Your task to perform on an android device: find snoozed emails in the gmail app Image 0: 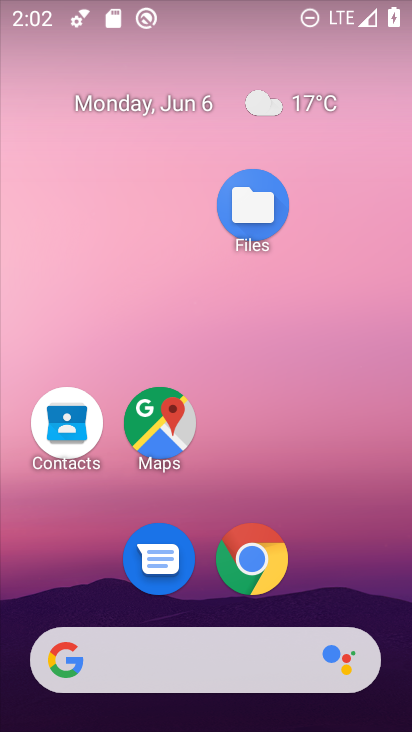
Step 0: drag from (262, 622) to (256, 169)
Your task to perform on an android device: find snoozed emails in the gmail app Image 1: 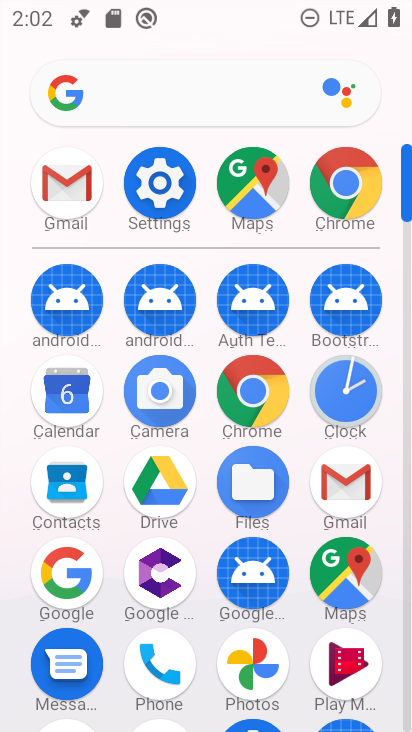
Step 1: click (332, 475)
Your task to perform on an android device: find snoozed emails in the gmail app Image 2: 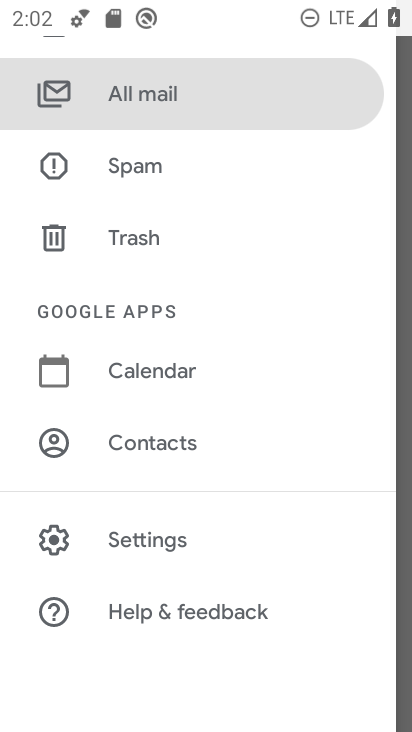
Step 2: drag from (275, 338) to (230, 590)
Your task to perform on an android device: find snoozed emails in the gmail app Image 3: 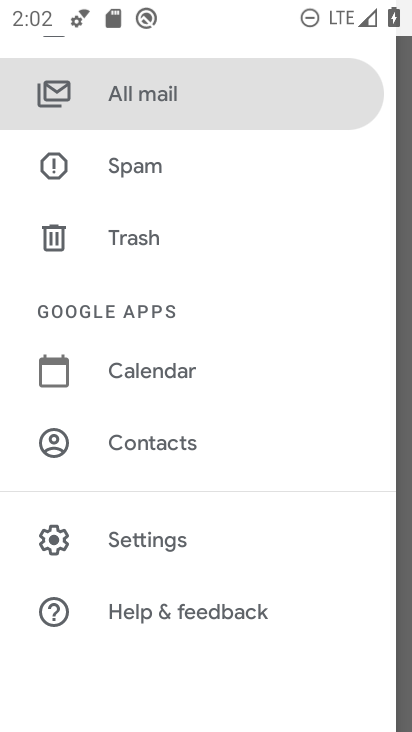
Step 3: drag from (216, 382) to (182, 630)
Your task to perform on an android device: find snoozed emails in the gmail app Image 4: 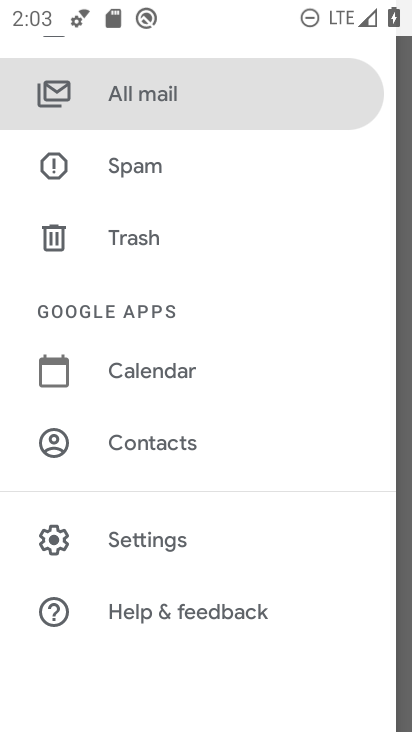
Step 4: drag from (171, 213) to (161, 644)
Your task to perform on an android device: find snoozed emails in the gmail app Image 5: 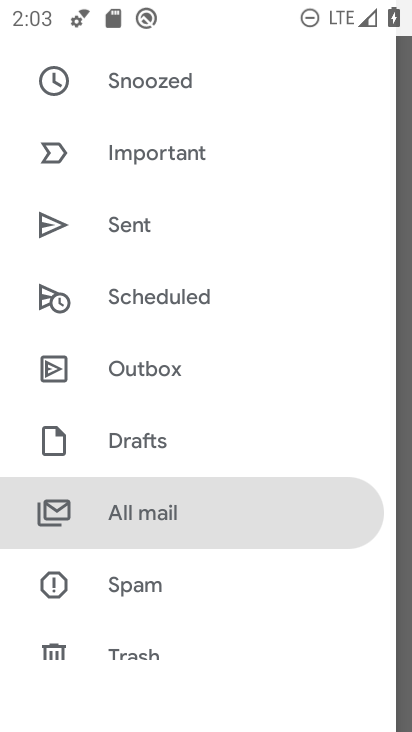
Step 5: click (181, 83)
Your task to perform on an android device: find snoozed emails in the gmail app Image 6: 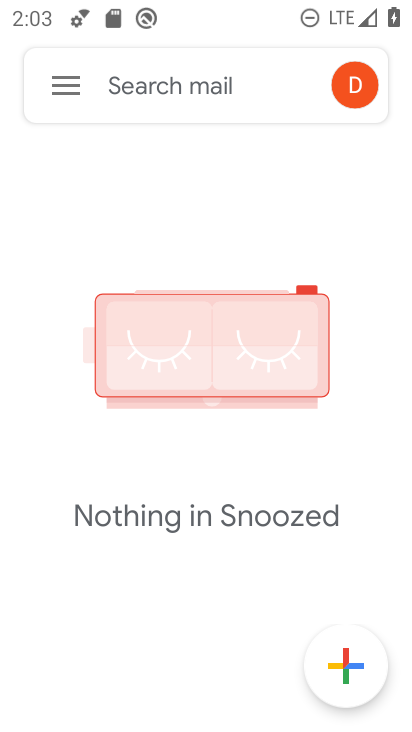
Step 6: task complete